Your task to perform on an android device: Check the news Image 0: 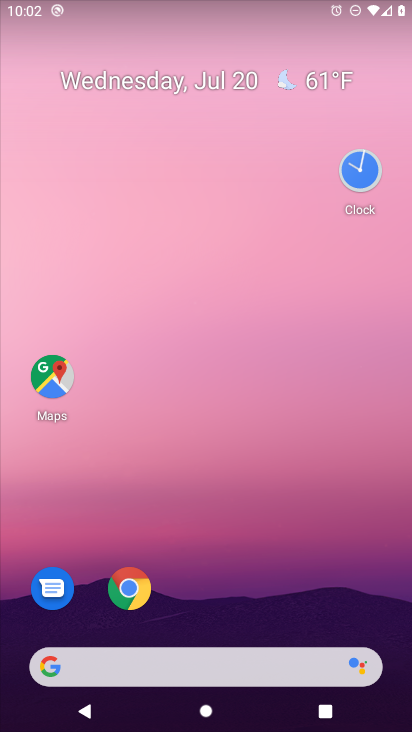
Step 0: click (137, 654)
Your task to perform on an android device: Check the news Image 1: 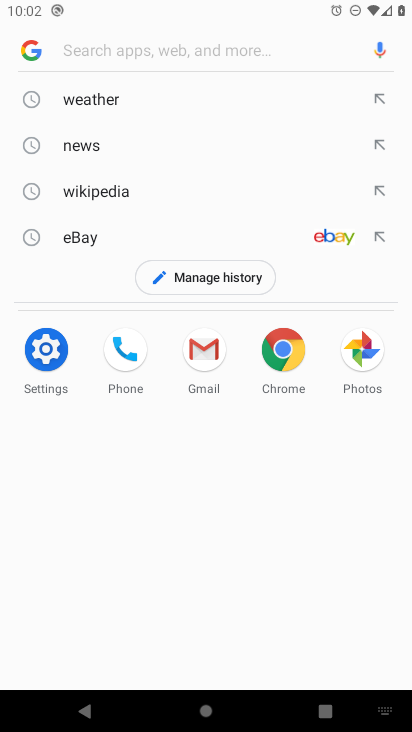
Step 1: click (102, 141)
Your task to perform on an android device: Check the news Image 2: 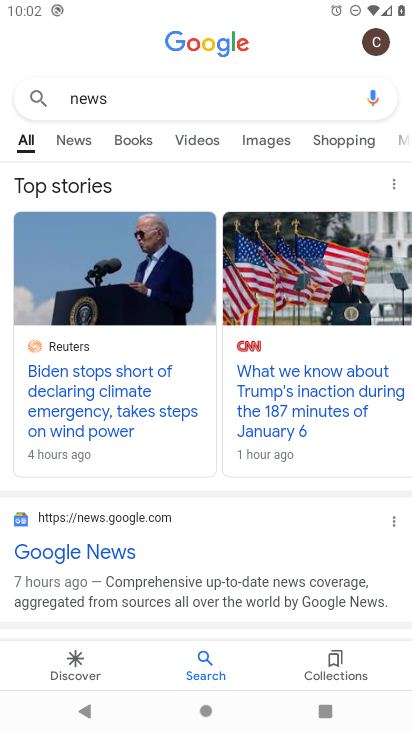
Step 2: task complete